Your task to perform on an android device: Go to eBay Image 0: 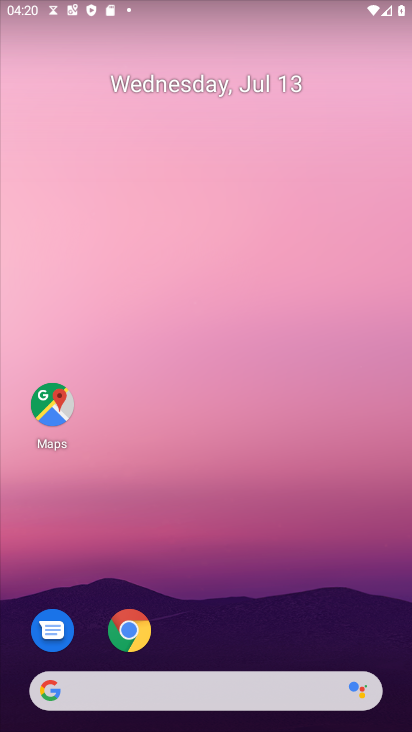
Step 0: drag from (270, 715) to (213, 3)
Your task to perform on an android device: Go to eBay Image 1: 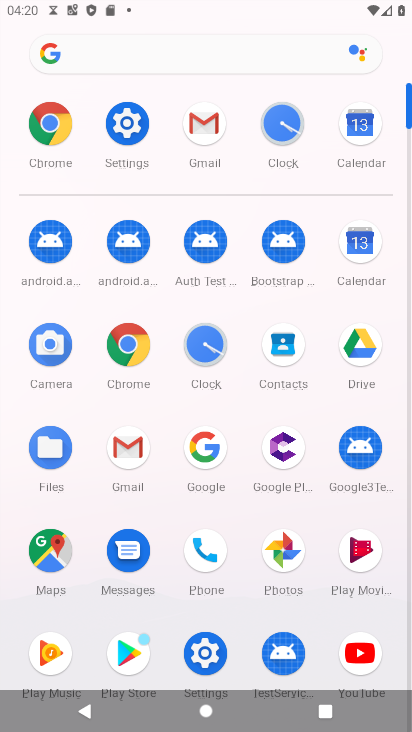
Step 1: click (143, 345)
Your task to perform on an android device: Go to eBay Image 2: 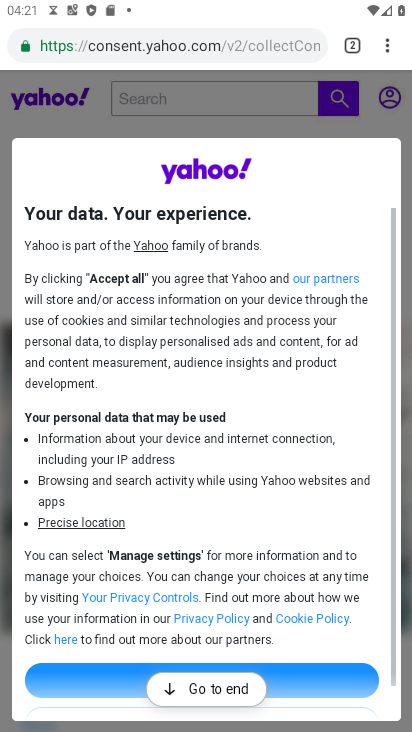
Step 2: click (220, 47)
Your task to perform on an android device: Go to eBay Image 3: 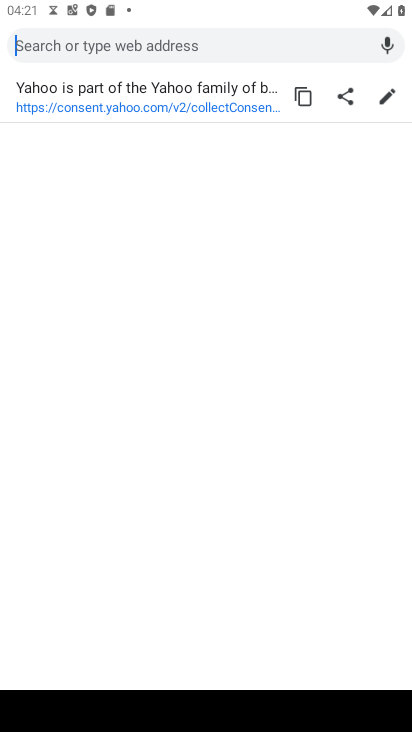
Step 3: type "ebay"
Your task to perform on an android device: Go to eBay Image 4: 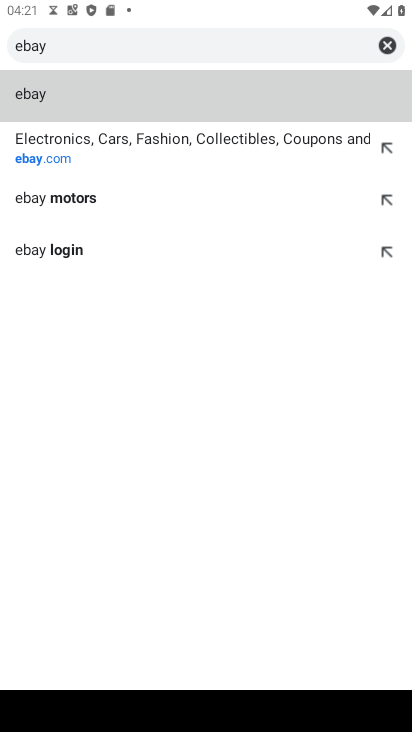
Step 4: click (238, 141)
Your task to perform on an android device: Go to eBay Image 5: 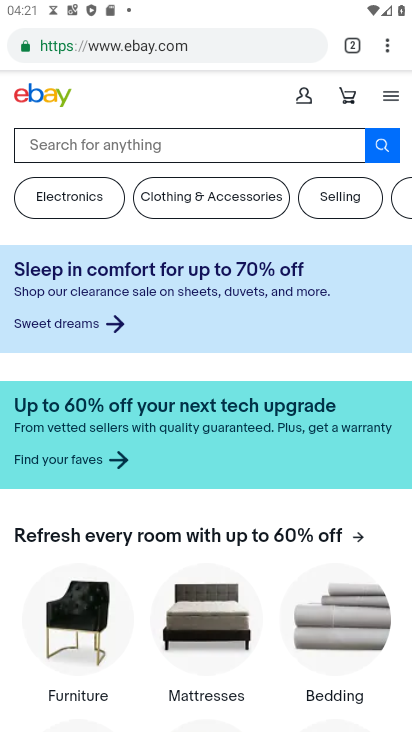
Step 5: task complete